Your task to perform on an android device: Go to Yahoo.com Image 0: 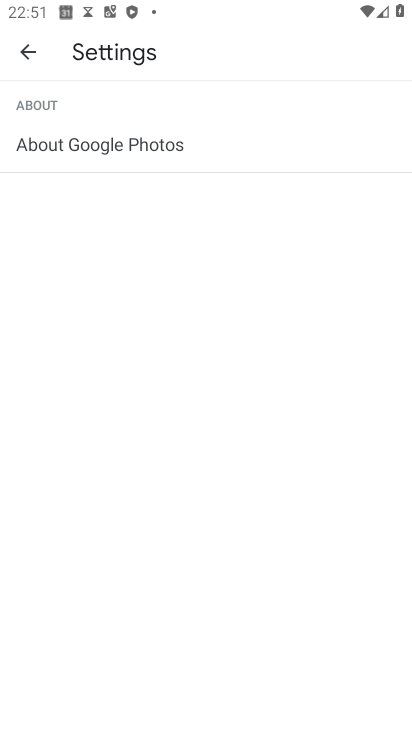
Step 0: press home button
Your task to perform on an android device: Go to Yahoo.com Image 1: 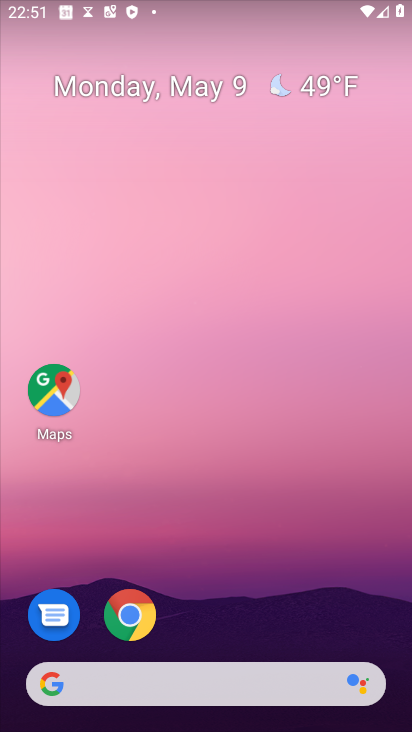
Step 1: click (134, 632)
Your task to perform on an android device: Go to Yahoo.com Image 2: 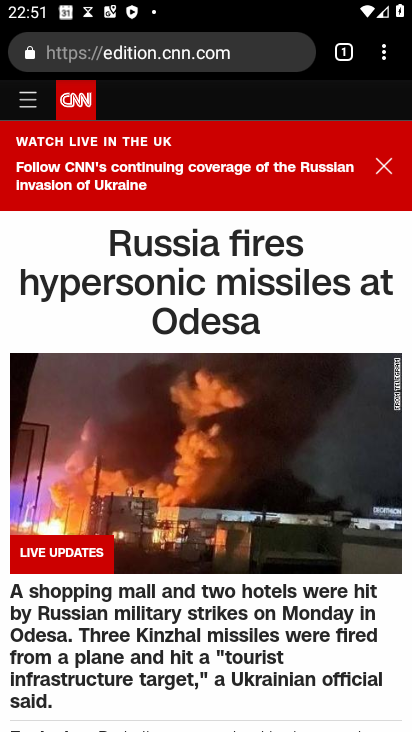
Step 2: click (195, 45)
Your task to perform on an android device: Go to Yahoo.com Image 3: 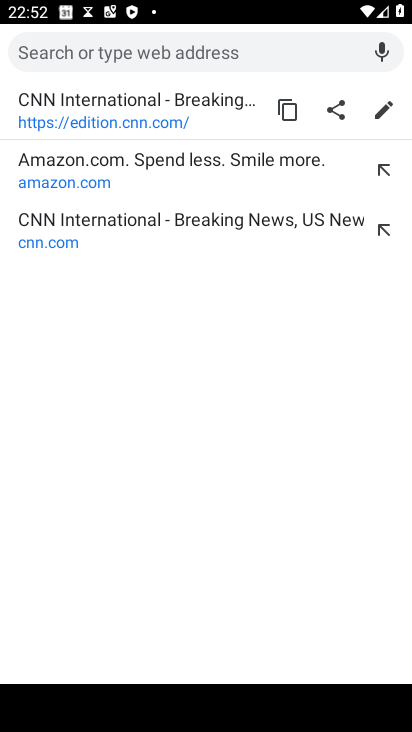
Step 3: type "yahoo.com"
Your task to perform on an android device: Go to Yahoo.com Image 4: 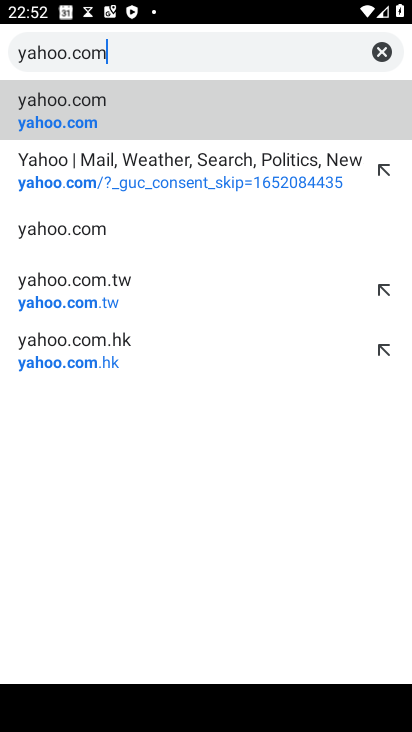
Step 4: click (42, 128)
Your task to perform on an android device: Go to Yahoo.com Image 5: 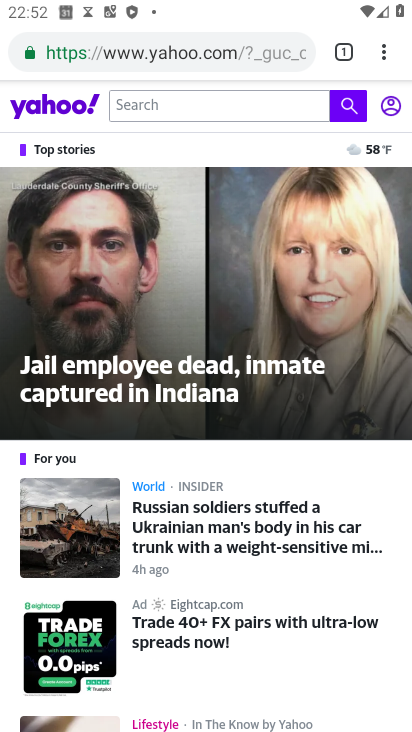
Step 5: task complete